Your task to perform on an android device: check battery use Image 0: 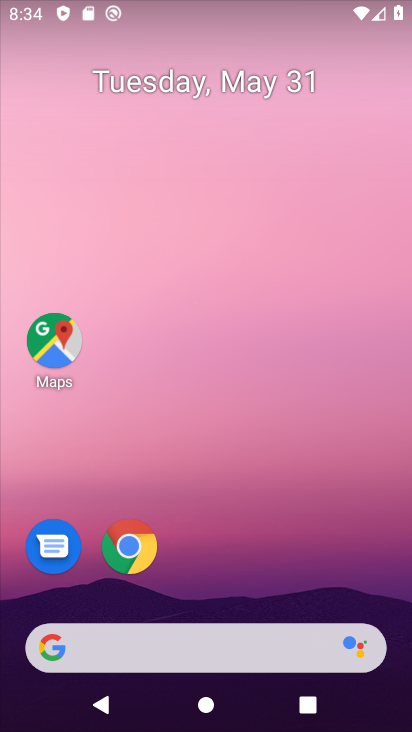
Step 0: drag from (387, 697) to (343, 128)
Your task to perform on an android device: check battery use Image 1: 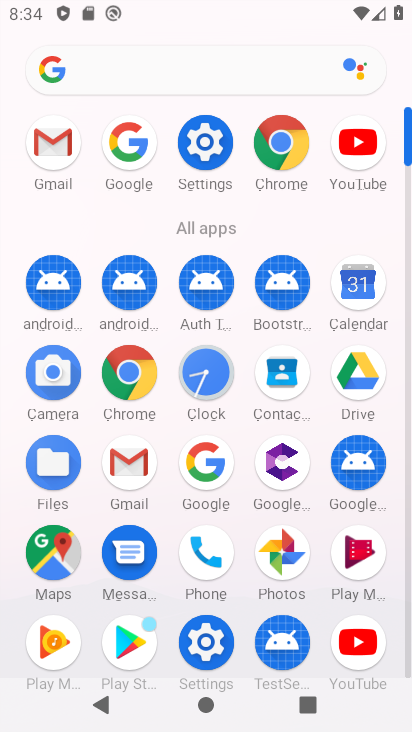
Step 1: click (211, 140)
Your task to perform on an android device: check battery use Image 2: 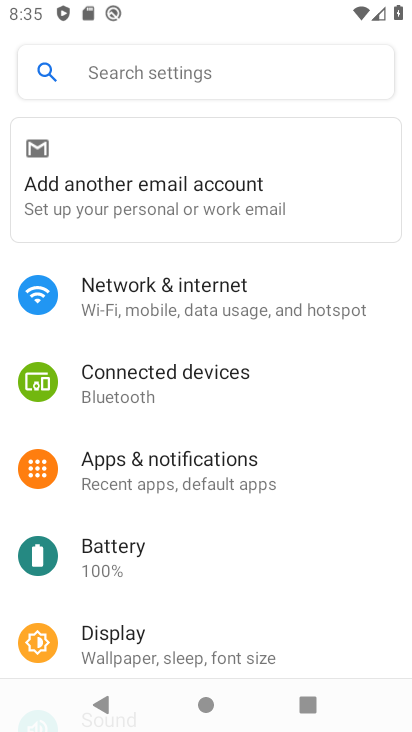
Step 2: click (106, 568)
Your task to perform on an android device: check battery use Image 3: 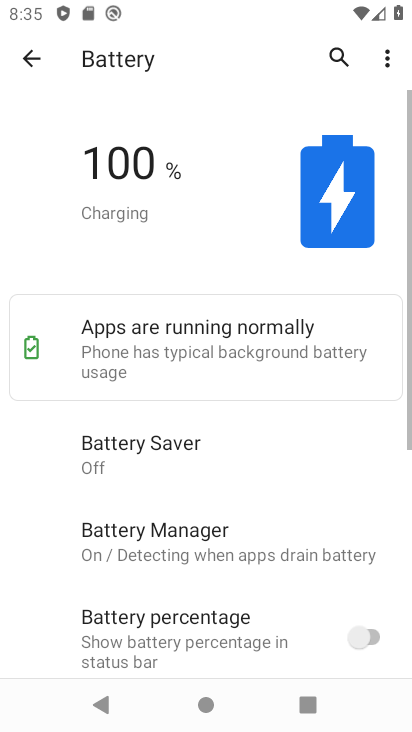
Step 3: click (382, 52)
Your task to perform on an android device: check battery use Image 4: 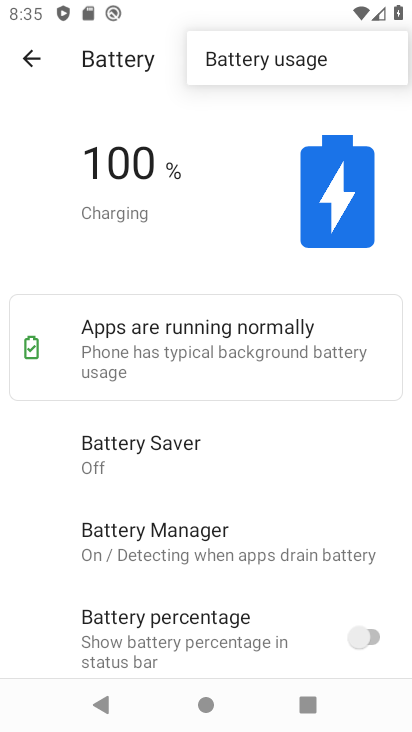
Step 4: click (238, 66)
Your task to perform on an android device: check battery use Image 5: 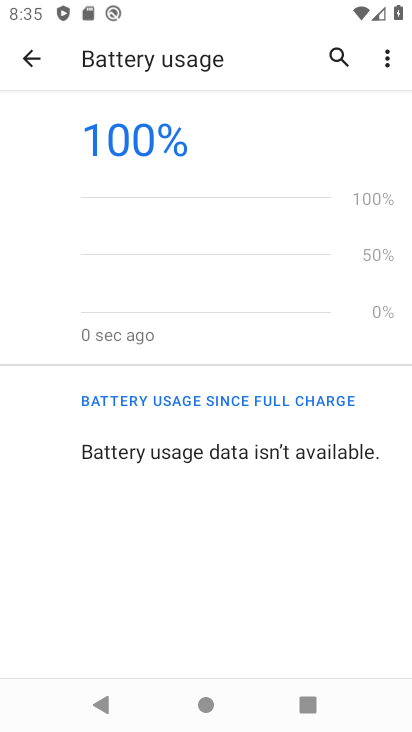
Step 5: task complete